Your task to perform on an android device: Go to eBay Image 0: 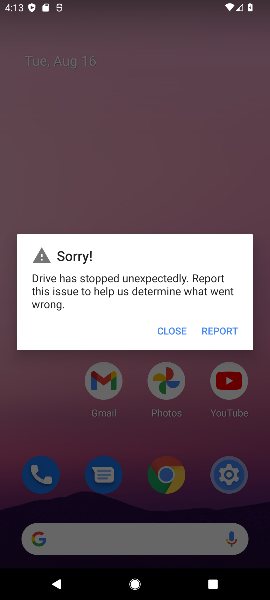
Step 0: drag from (210, 453) to (139, 24)
Your task to perform on an android device: Go to eBay Image 1: 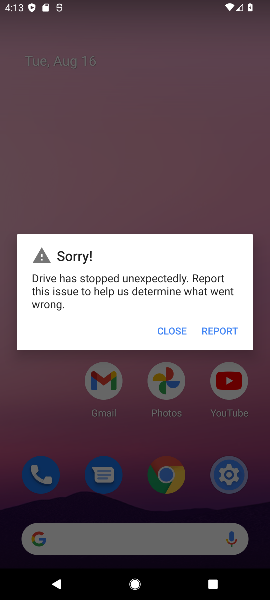
Step 1: click (166, 324)
Your task to perform on an android device: Go to eBay Image 2: 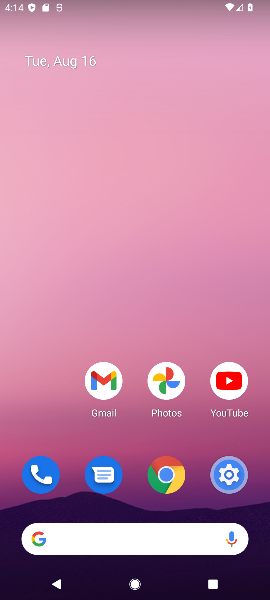
Step 2: drag from (205, 473) to (104, 18)
Your task to perform on an android device: Go to eBay Image 3: 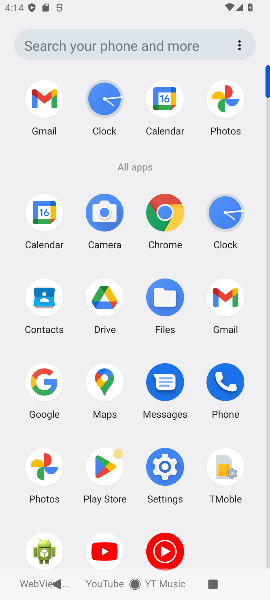
Step 3: click (38, 389)
Your task to perform on an android device: Go to eBay Image 4: 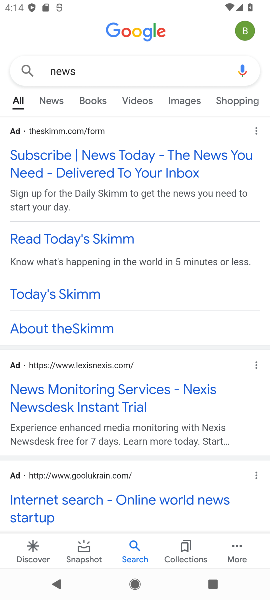
Step 4: press back button
Your task to perform on an android device: Go to eBay Image 5: 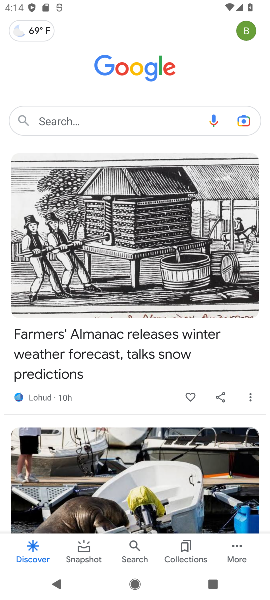
Step 5: click (66, 111)
Your task to perform on an android device: Go to eBay Image 6: 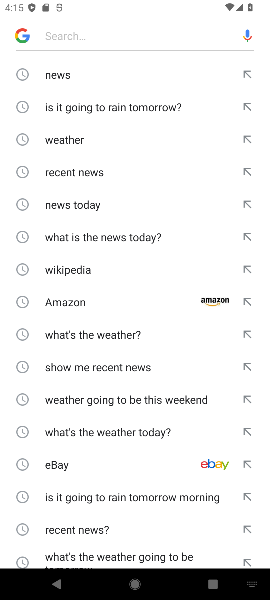
Step 6: click (108, 464)
Your task to perform on an android device: Go to eBay Image 7: 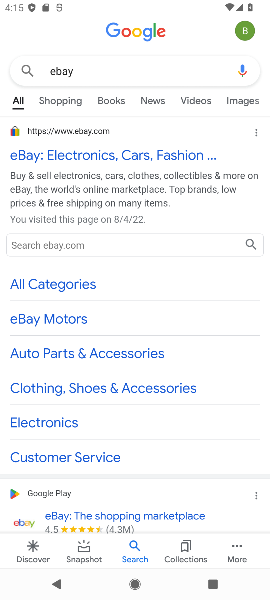
Step 7: task complete